Your task to perform on an android device: Check the latest toasters on Target. Image 0: 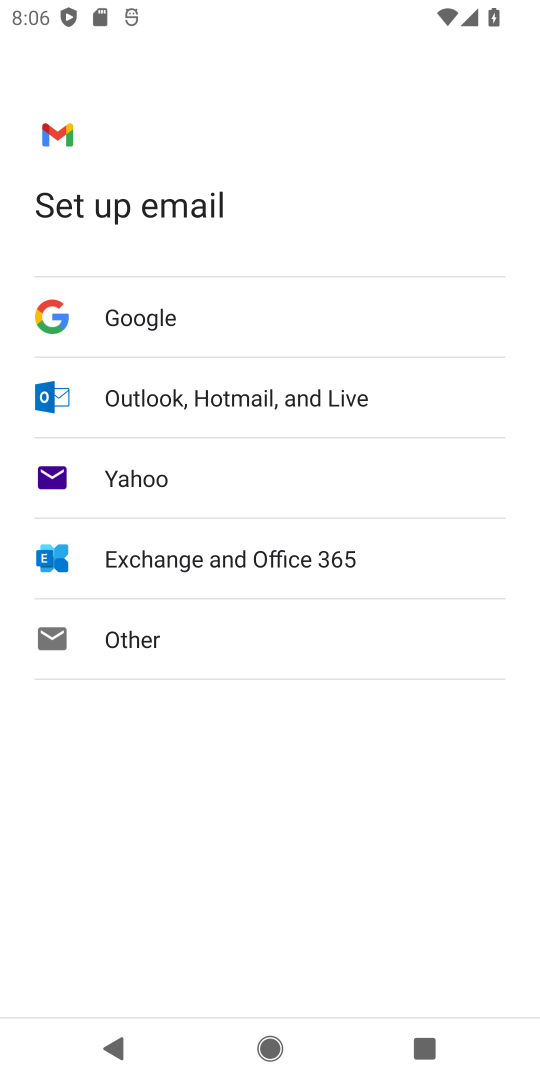
Step 0: press home button
Your task to perform on an android device: Check the latest toasters on Target. Image 1: 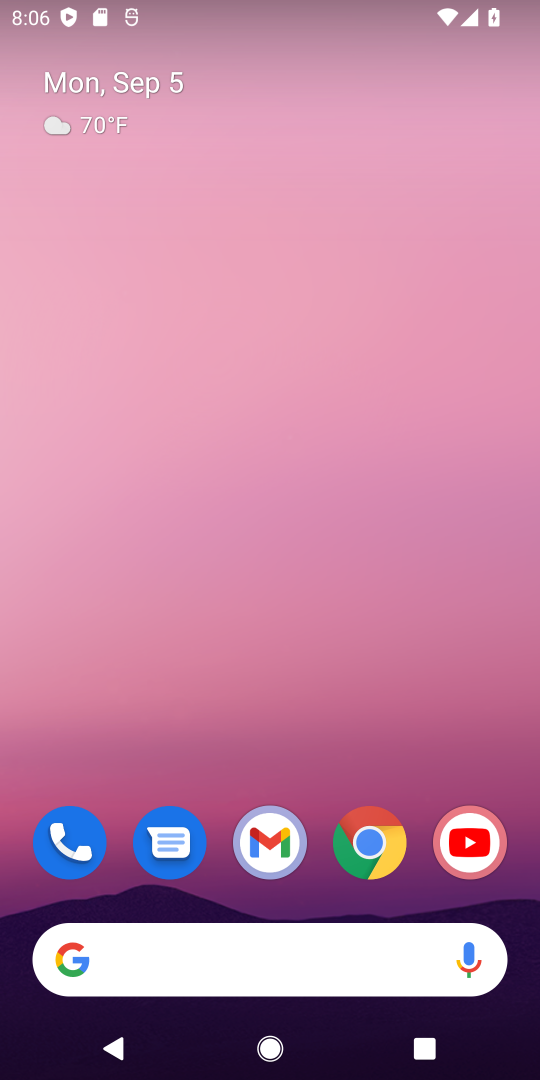
Step 1: click (371, 841)
Your task to perform on an android device: Check the latest toasters on Target. Image 2: 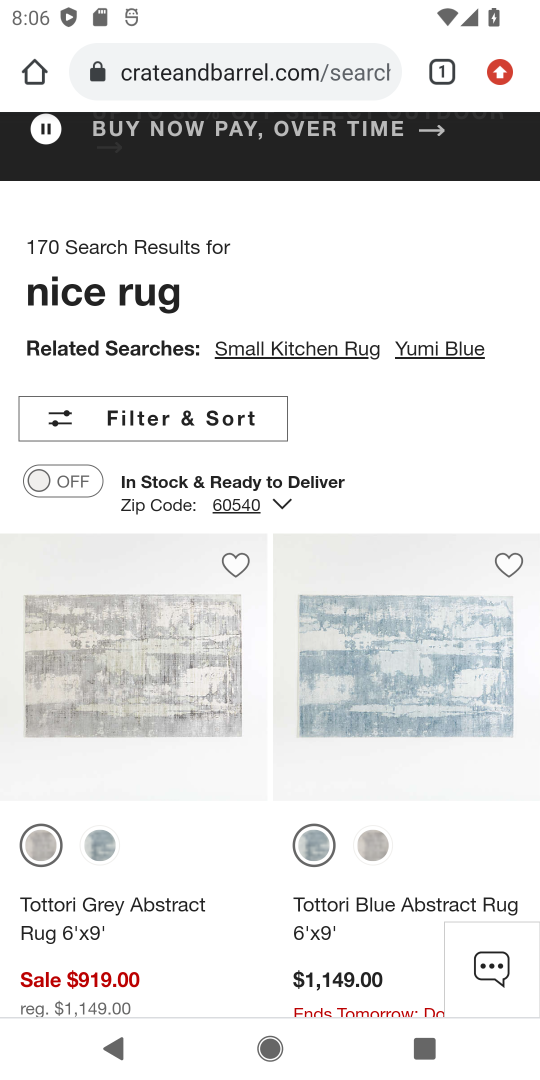
Step 2: click (353, 65)
Your task to perform on an android device: Check the latest toasters on Target. Image 3: 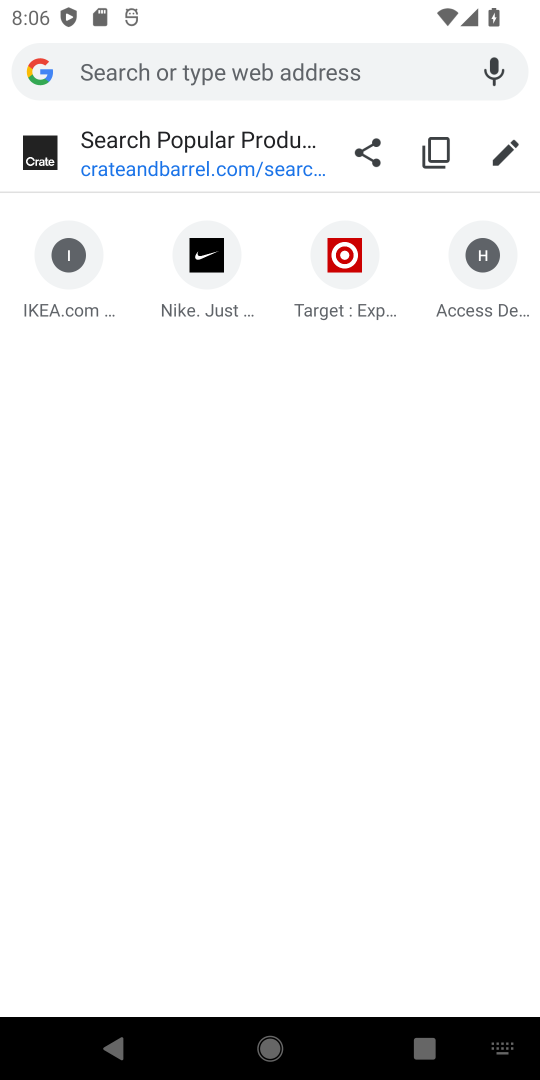
Step 3: type "Target"
Your task to perform on an android device: Check the latest toasters on Target. Image 4: 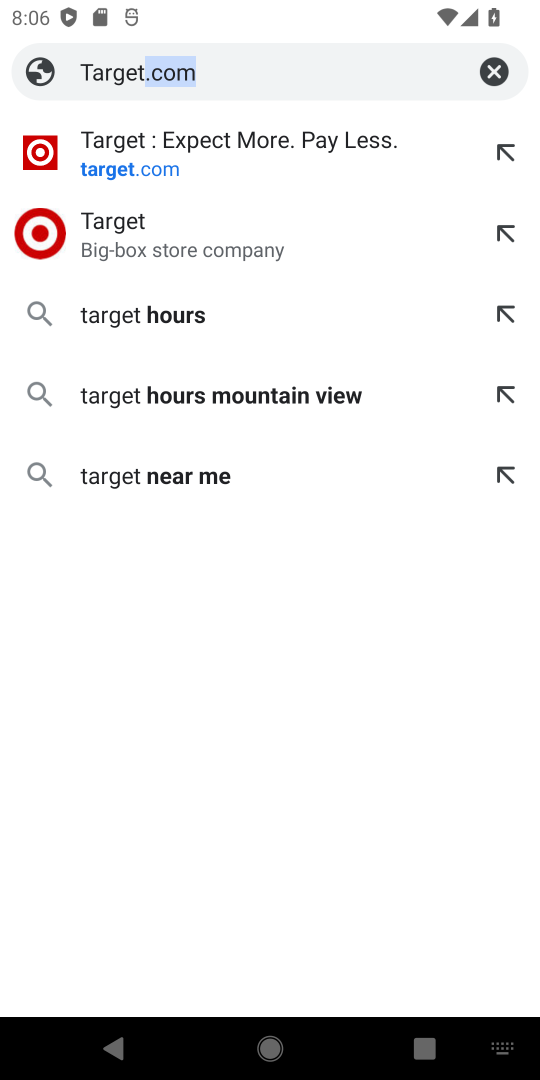
Step 4: click (191, 252)
Your task to perform on an android device: Check the latest toasters on Target. Image 5: 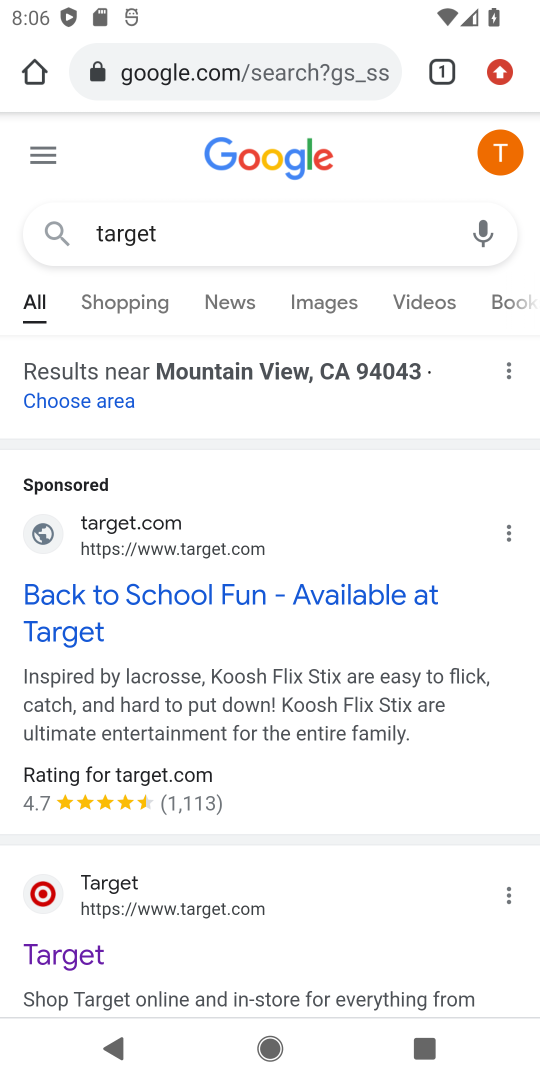
Step 5: click (107, 978)
Your task to perform on an android device: Check the latest toasters on Target. Image 6: 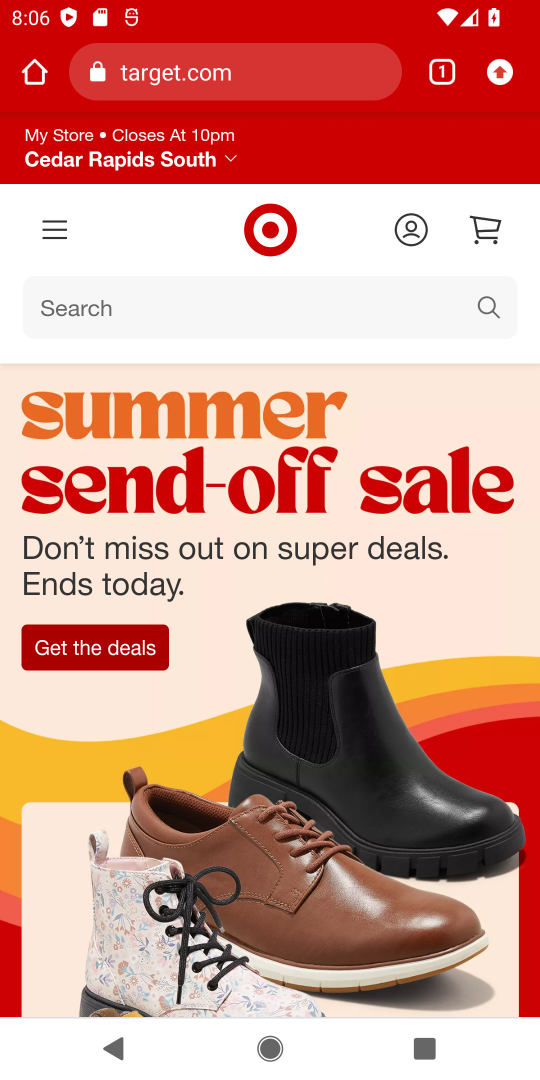
Step 6: click (306, 315)
Your task to perform on an android device: Check the latest toasters on Target. Image 7: 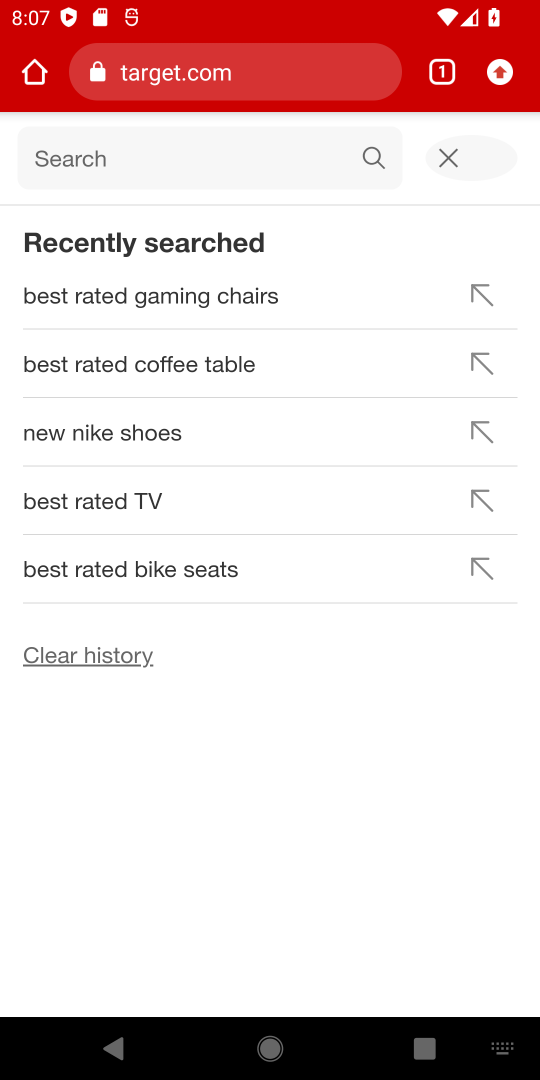
Step 7: type "latest toasters"
Your task to perform on an android device: Check the latest toasters on Target. Image 8: 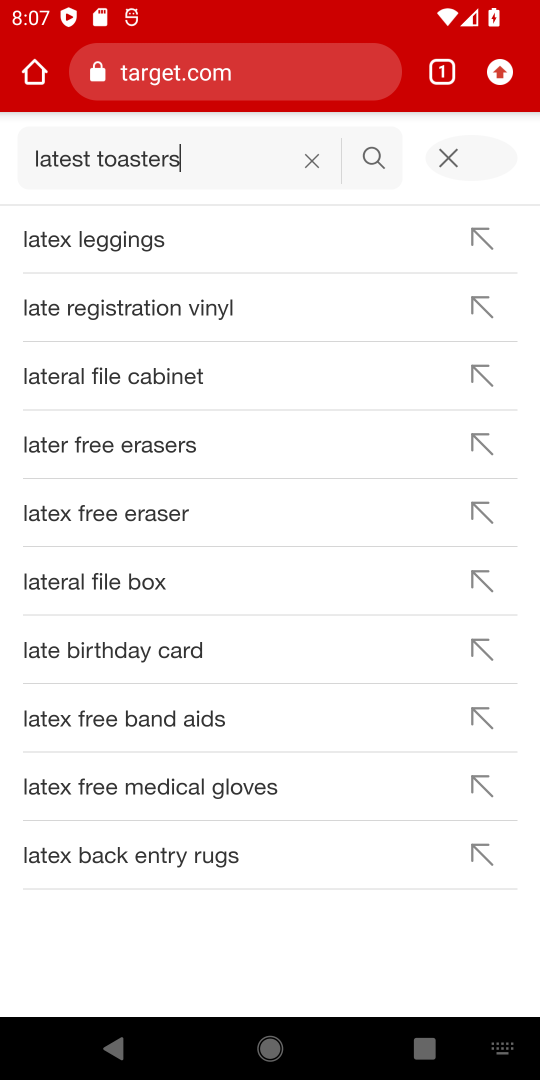
Step 8: click (376, 163)
Your task to perform on an android device: Check the latest toasters on Target. Image 9: 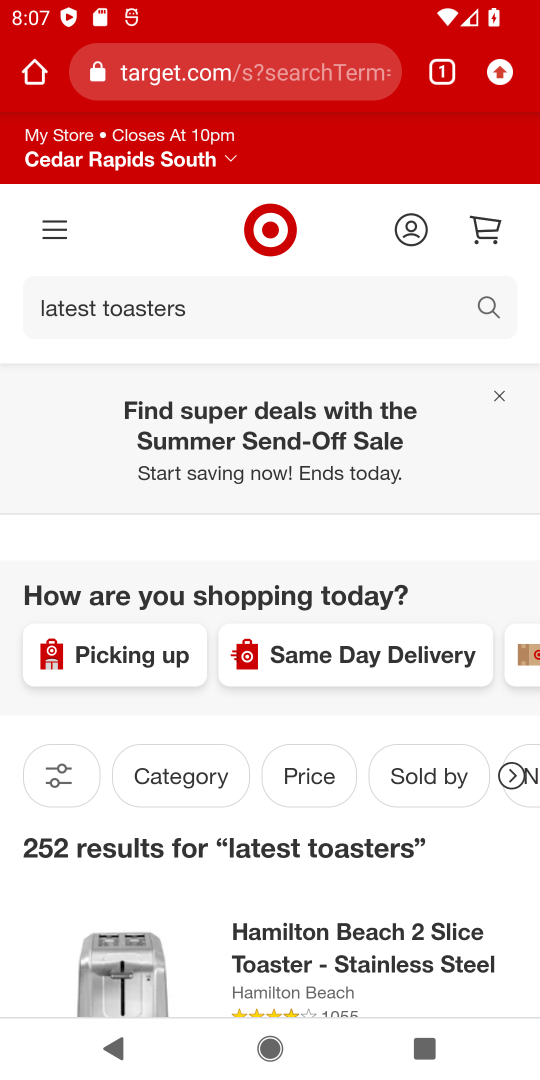
Step 9: drag from (184, 899) to (181, 654)
Your task to perform on an android device: Check the latest toasters on Target. Image 10: 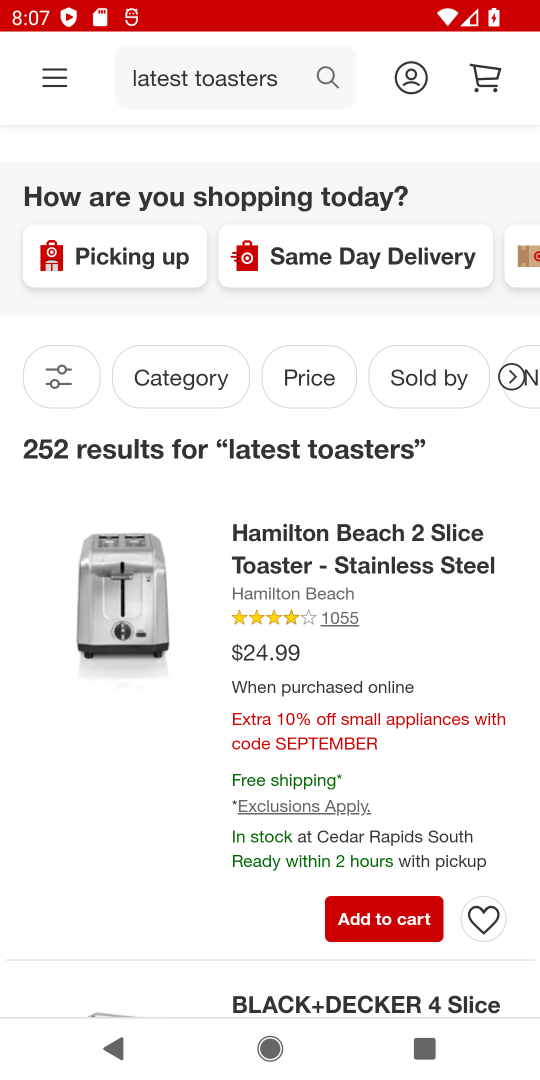
Step 10: drag from (193, 883) to (192, 734)
Your task to perform on an android device: Check the latest toasters on Target. Image 11: 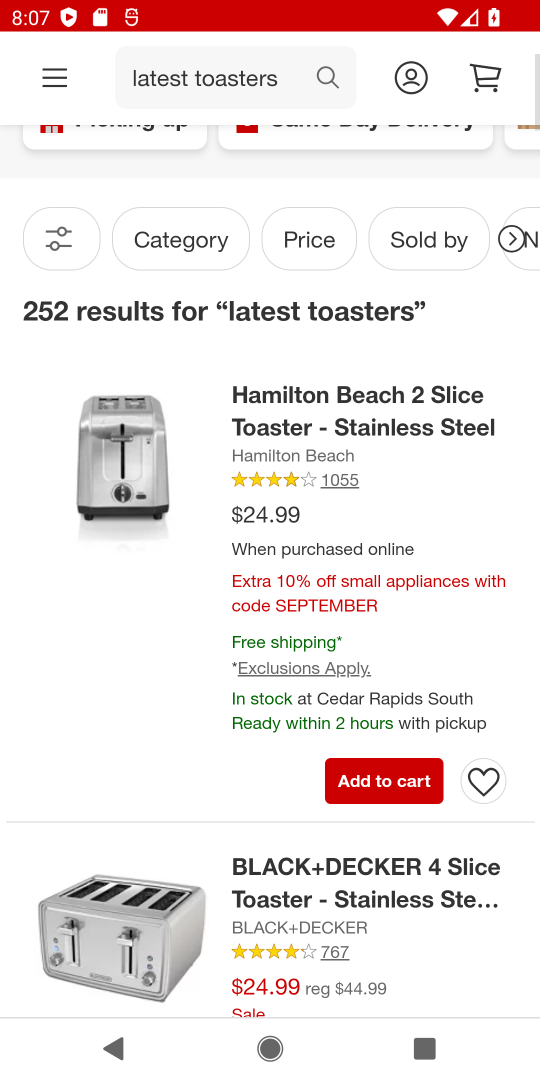
Step 11: drag from (197, 844) to (217, 719)
Your task to perform on an android device: Check the latest toasters on Target. Image 12: 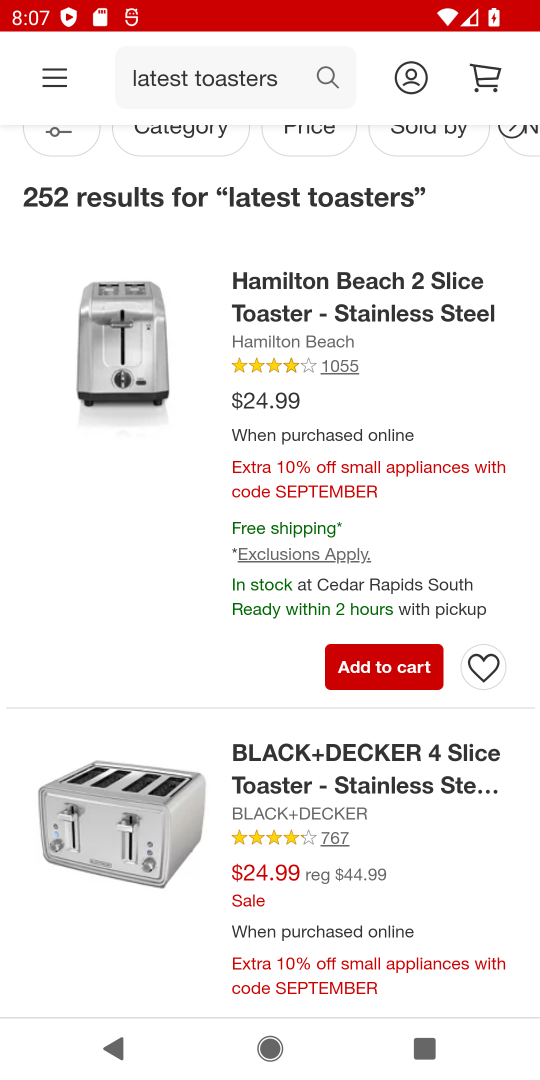
Step 12: drag from (205, 886) to (213, 803)
Your task to perform on an android device: Check the latest toasters on Target. Image 13: 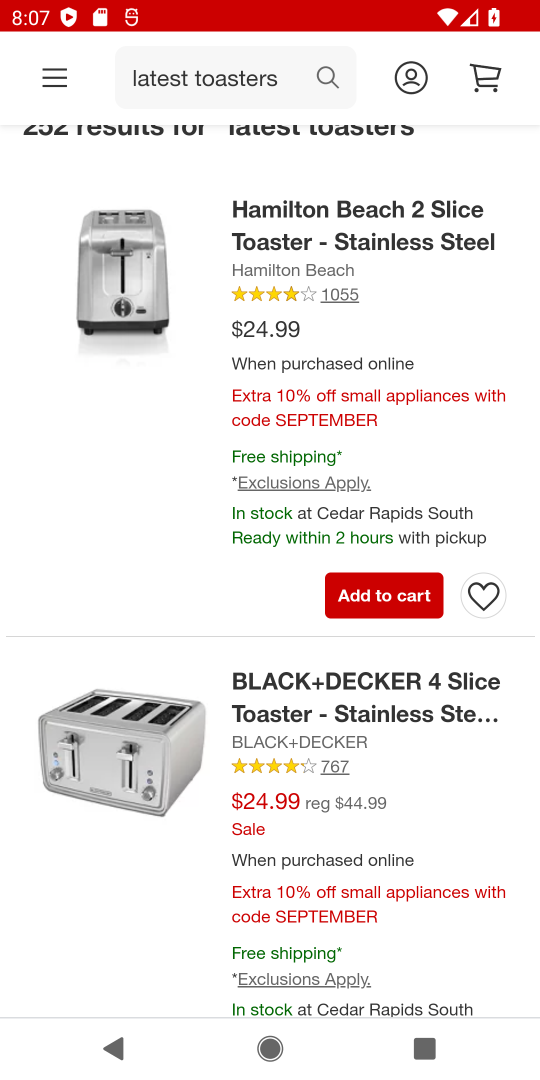
Step 13: drag from (190, 953) to (214, 849)
Your task to perform on an android device: Check the latest toasters on Target. Image 14: 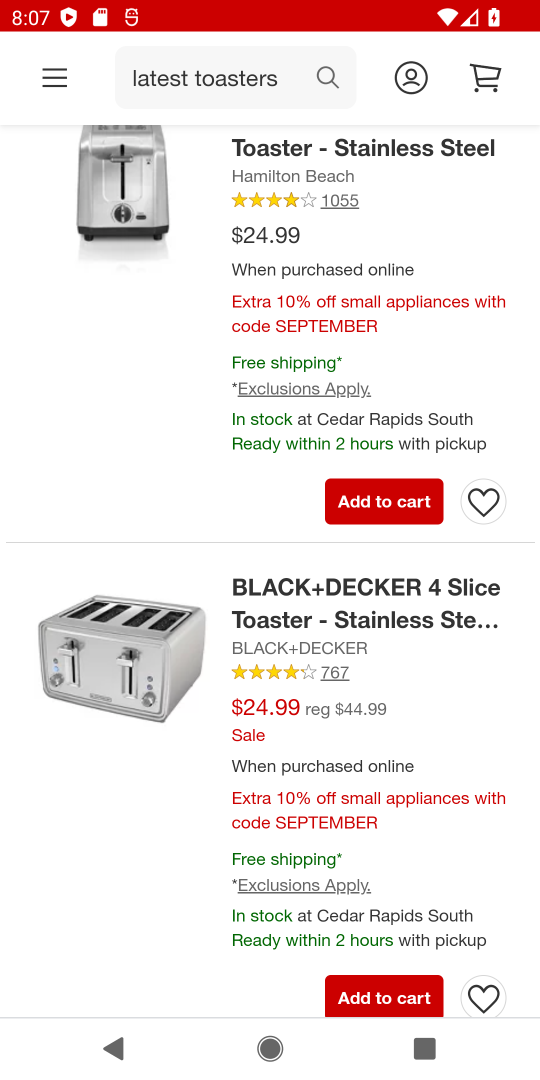
Step 14: drag from (170, 920) to (175, 785)
Your task to perform on an android device: Check the latest toasters on Target. Image 15: 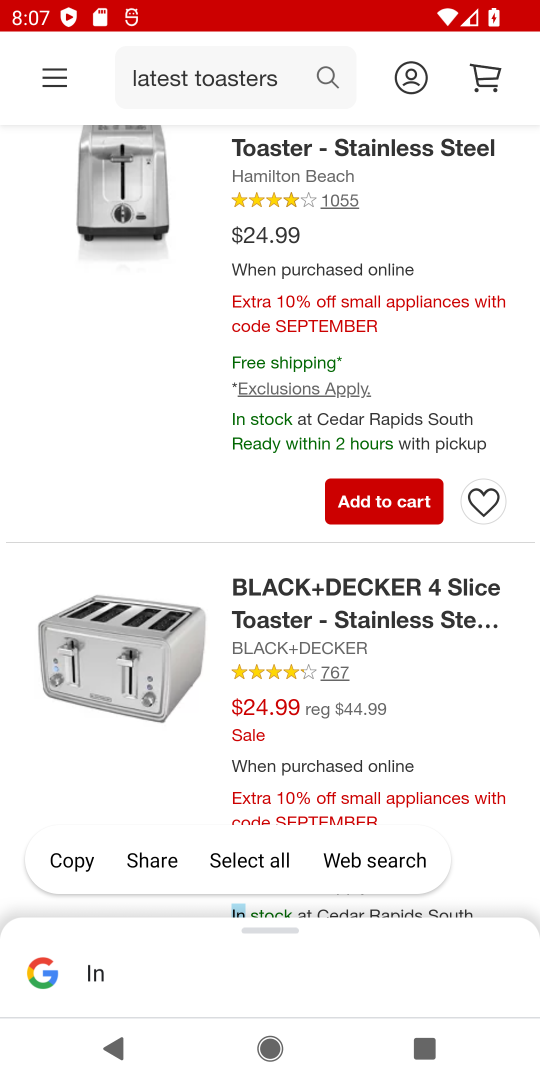
Step 15: click (185, 752)
Your task to perform on an android device: Check the latest toasters on Target. Image 16: 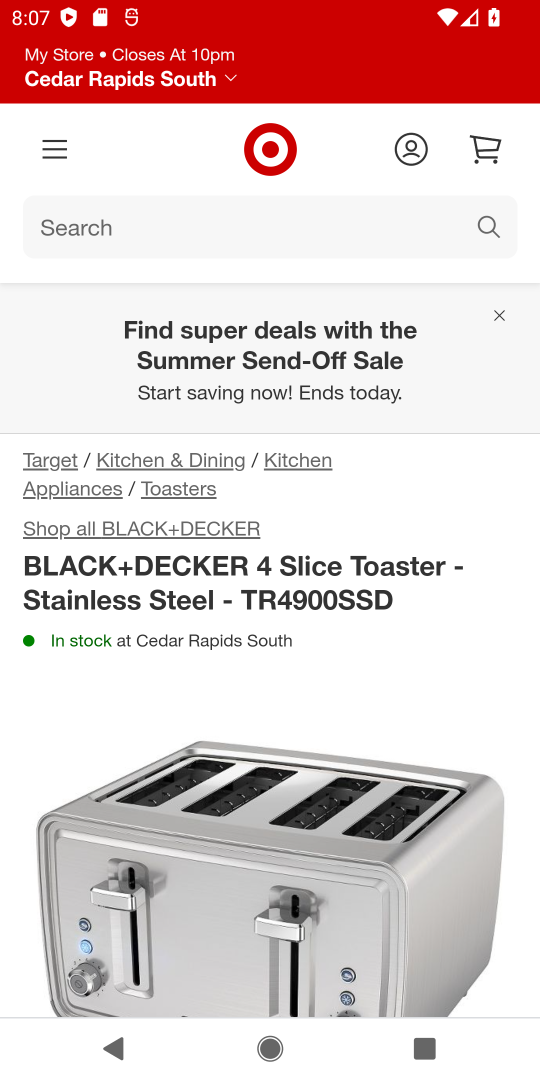
Step 16: task complete